Your task to perform on an android device: Open the Play Movies app and select the watchlist tab. Image 0: 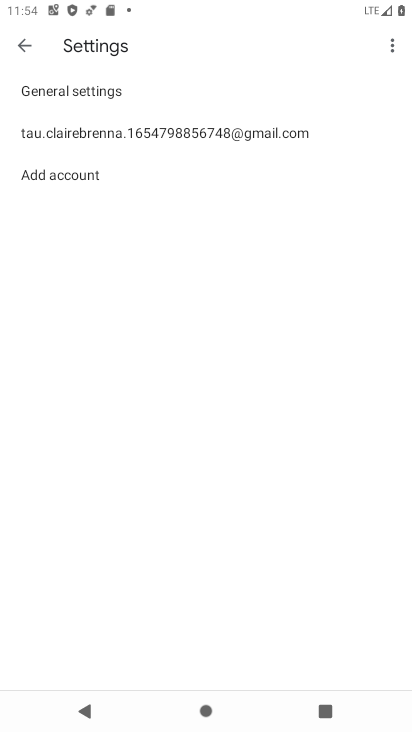
Step 0: press home button
Your task to perform on an android device: Open the Play Movies app and select the watchlist tab. Image 1: 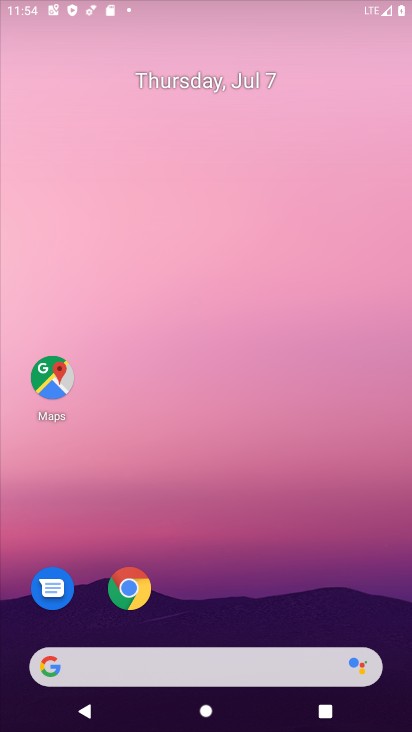
Step 1: drag from (260, 597) to (320, 73)
Your task to perform on an android device: Open the Play Movies app and select the watchlist tab. Image 2: 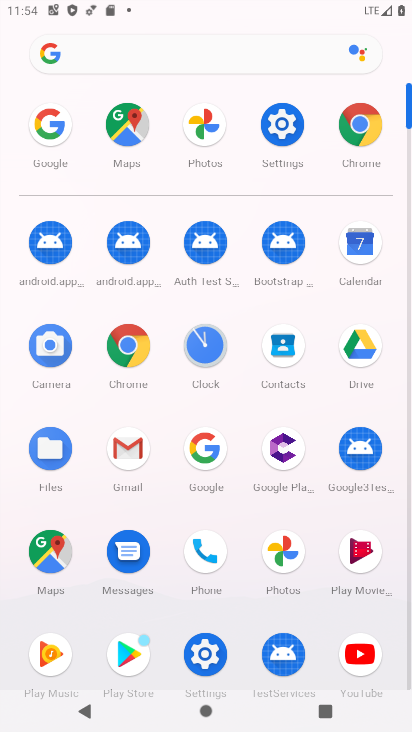
Step 2: drag from (321, 581) to (333, 242)
Your task to perform on an android device: Open the Play Movies app and select the watchlist tab. Image 3: 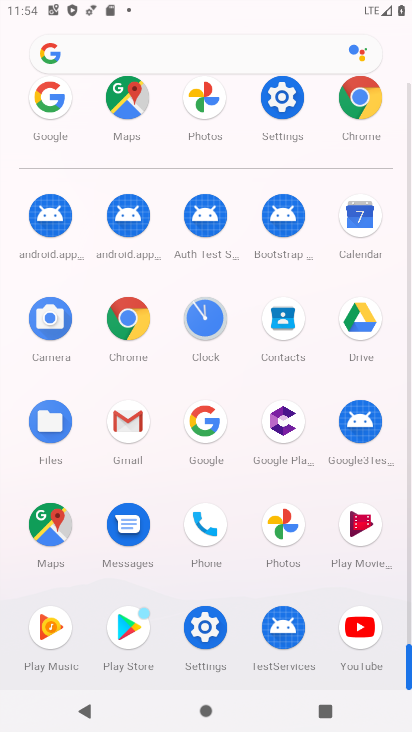
Step 3: click (359, 527)
Your task to perform on an android device: Open the Play Movies app and select the watchlist tab. Image 4: 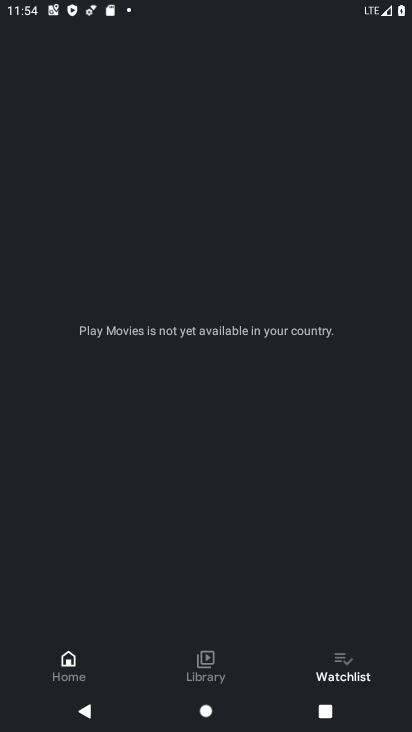
Step 4: click (331, 673)
Your task to perform on an android device: Open the Play Movies app and select the watchlist tab. Image 5: 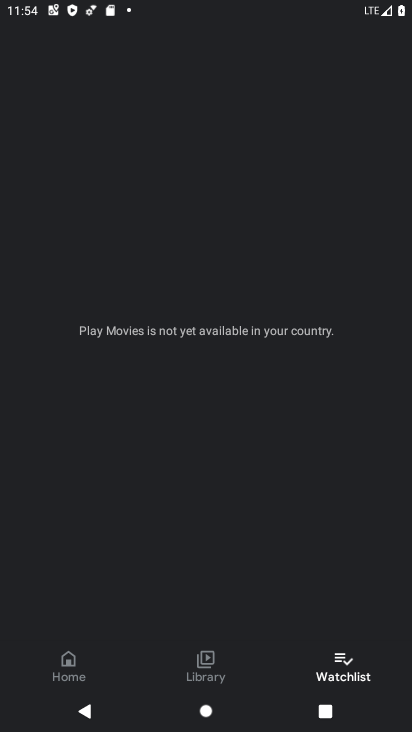
Step 5: task complete